Your task to perform on an android device: open the mobile data screen to see how much data has been used Image 0: 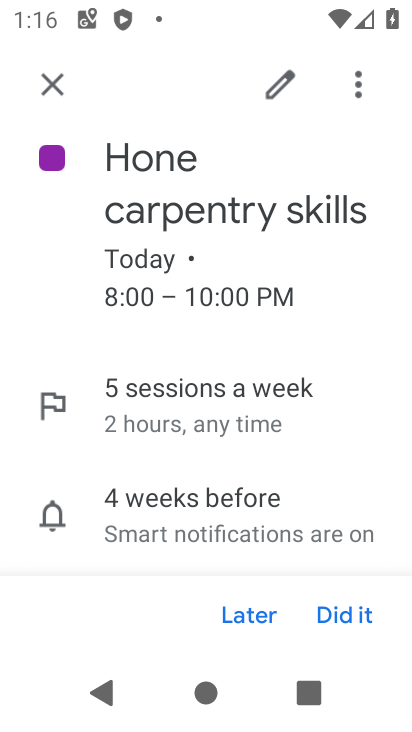
Step 0: press home button
Your task to perform on an android device: open the mobile data screen to see how much data has been used Image 1: 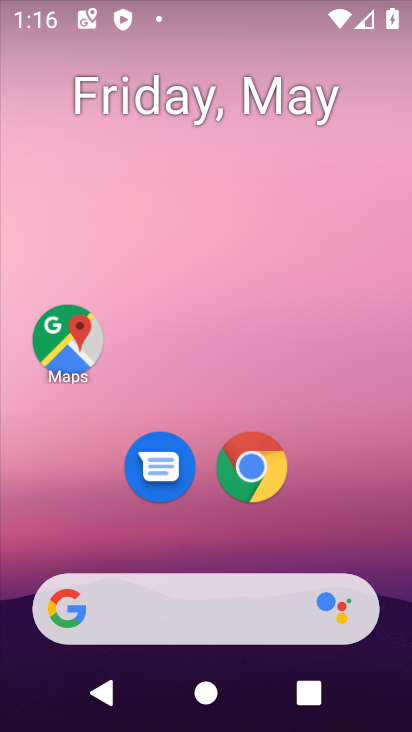
Step 1: drag from (342, 544) to (282, 142)
Your task to perform on an android device: open the mobile data screen to see how much data has been used Image 2: 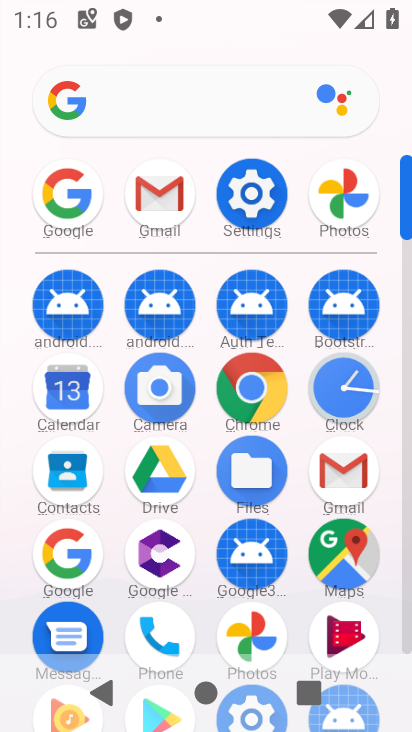
Step 2: click (249, 198)
Your task to perform on an android device: open the mobile data screen to see how much data has been used Image 3: 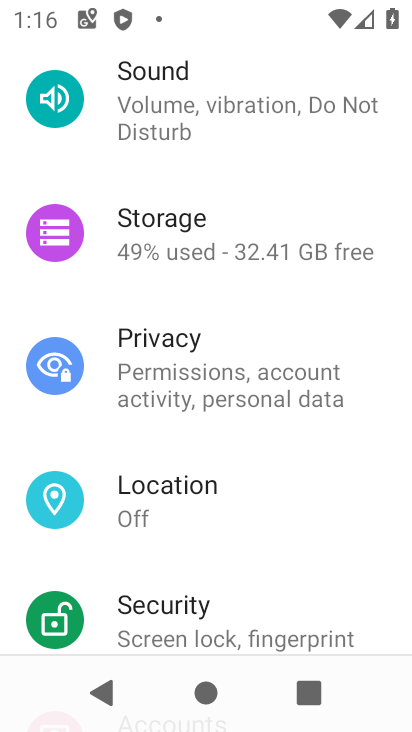
Step 3: drag from (239, 209) to (260, 358)
Your task to perform on an android device: open the mobile data screen to see how much data has been used Image 4: 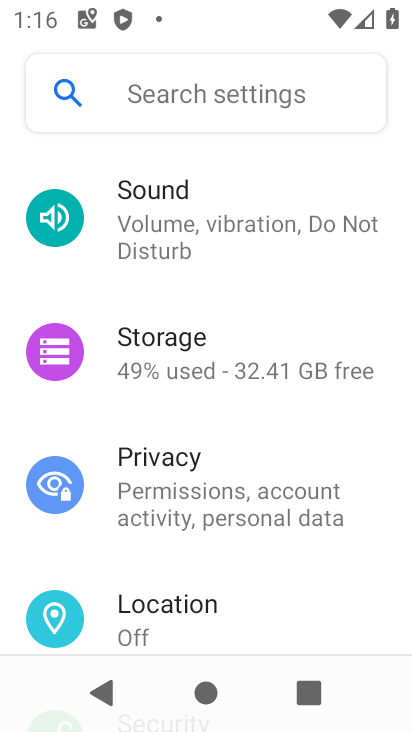
Step 4: drag from (248, 192) to (265, 319)
Your task to perform on an android device: open the mobile data screen to see how much data has been used Image 5: 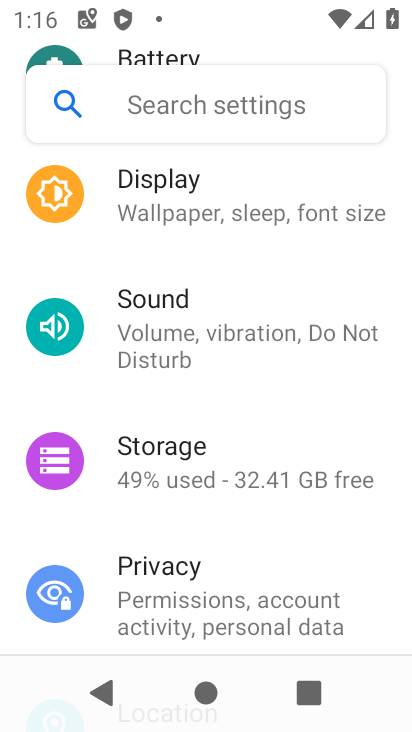
Step 5: drag from (249, 253) to (274, 433)
Your task to perform on an android device: open the mobile data screen to see how much data has been used Image 6: 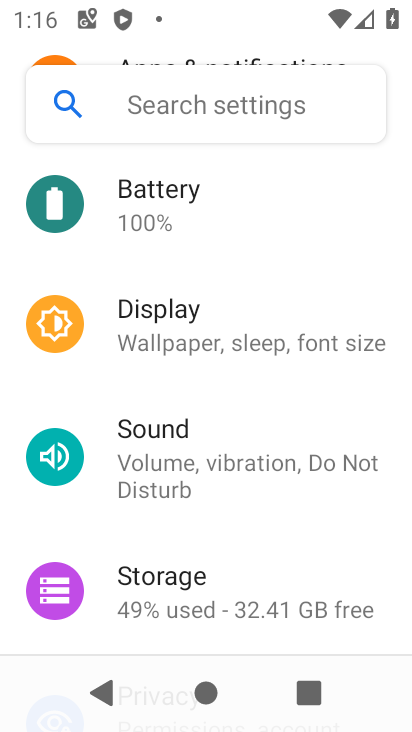
Step 6: drag from (253, 258) to (265, 444)
Your task to perform on an android device: open the mobile data screen to see how much data has been used Image 7: 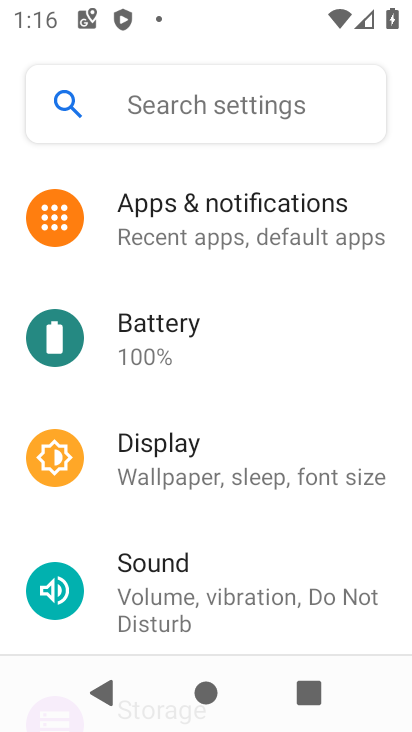
Step 7: drag from (224, 325) to (237, 472)
Your task to perform on an android device: open the mobile data screen to see how much data has been used Image 8: 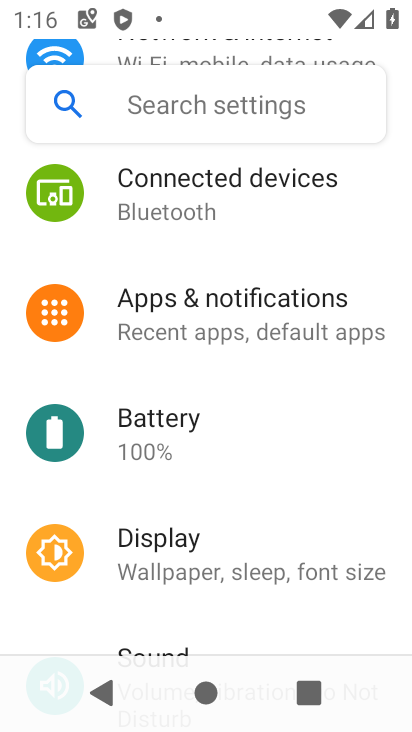
Step 8: drag from (242, 246) to (288, 497)
Your task to perform on an android device: open the mobile data screen to see how much data has been used Image 9: 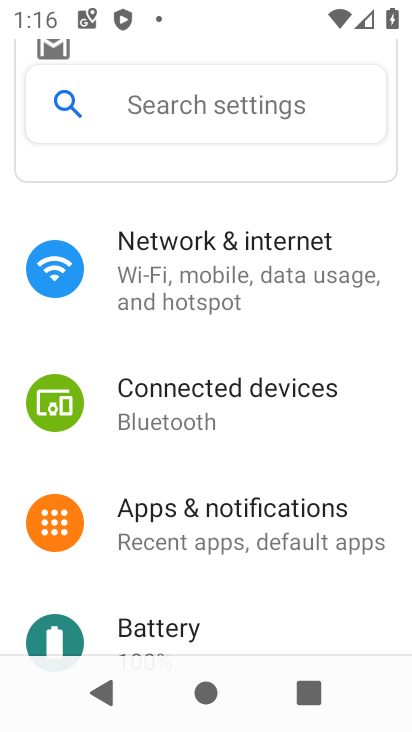
Step 9: drag from (256, 348) to (265, 563)
Your task to perform on an android device: open the mobile data screen to see how much data has been used Image 10: 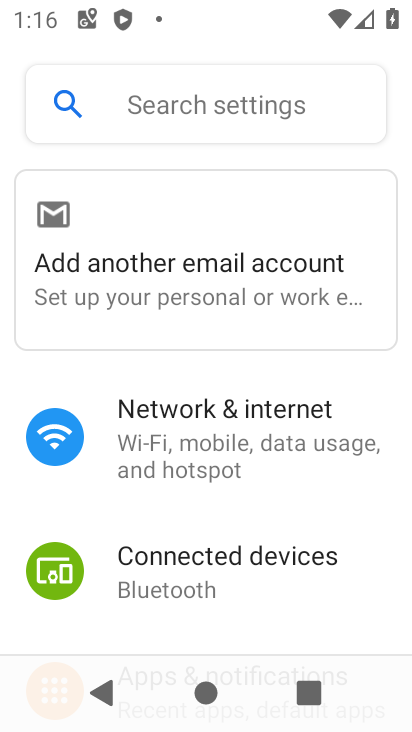
Step 10: click (252, 407)
Your task to perform on an android device: open the mobile data screen to see how much data has been used Image 11: 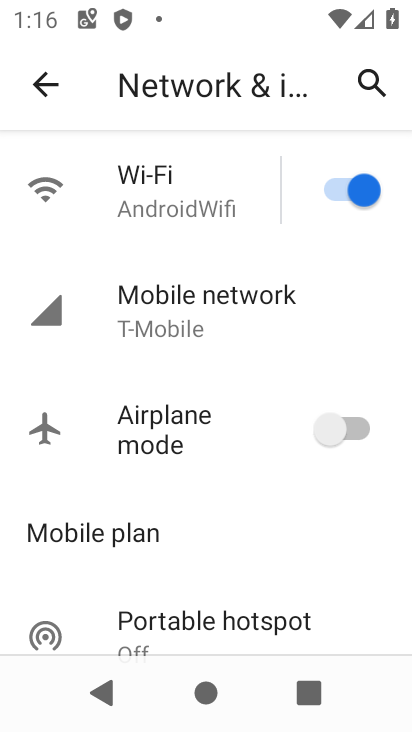
Step 11: click (209, 309)
Your task to perform on an android device: open the mobile data screen to see how much data has been used Image 12: 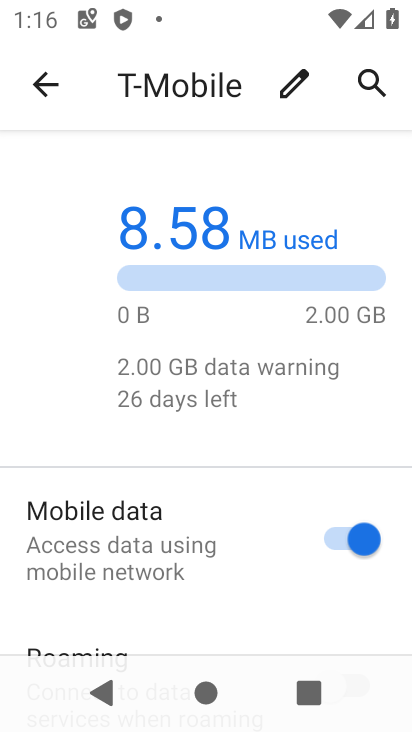
Step 12: task complete